Your task to perform on an android device: Open the web browser Image 0: 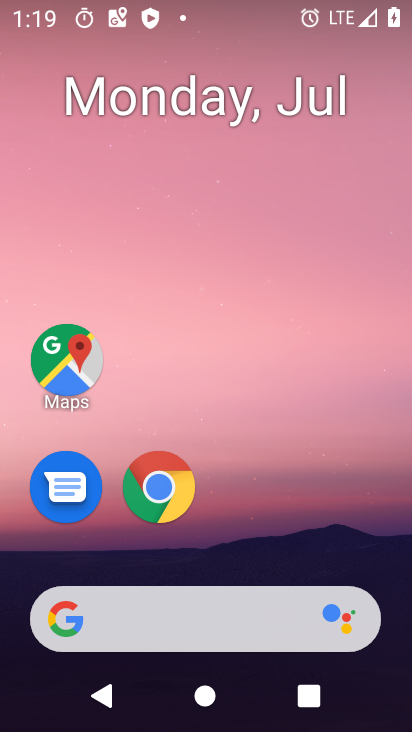
Step 0: click (54, 626)
Your task to perform on an android device: Open the web browser Image 1: 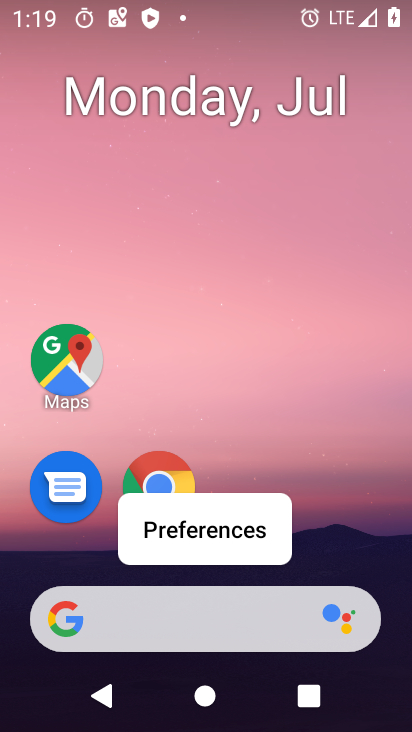
Step 1: click (55, 624)
Your task to perform on an android device: Open the web browser Image 2: 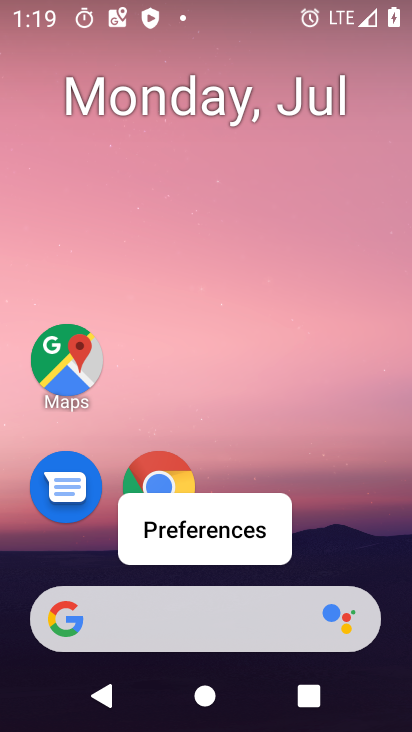
Step 2: click (55, 624)
Your task to perform on an android device: Open the web browser Image 3: 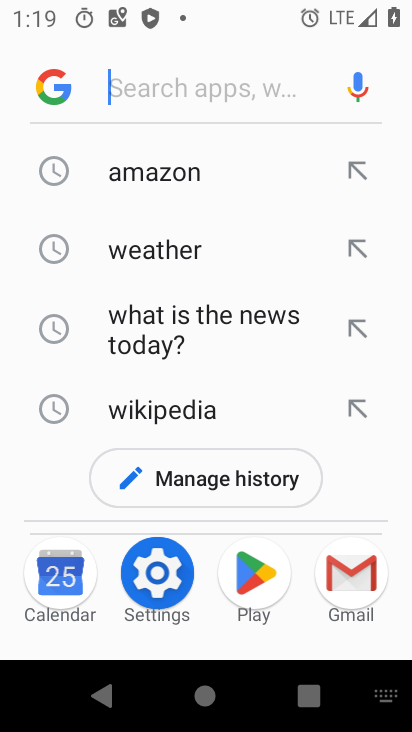
Step 3: click (55, 80)
Your task to perform on an android device: Open the web browser Image 4: 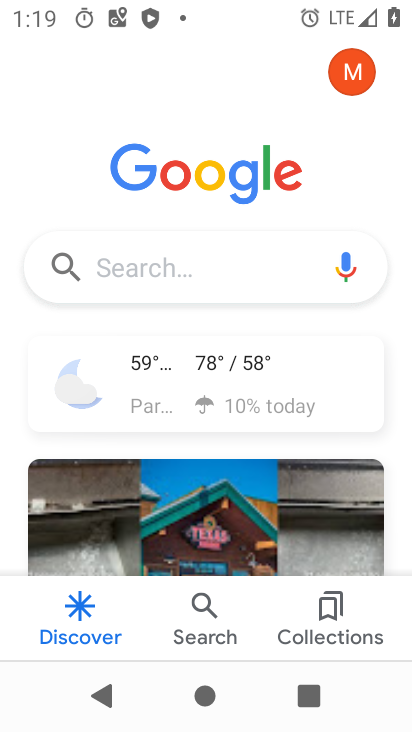
Step 4: task complete